Your task to perform on an android device: Go to calendar. Show me events next week Image 0: 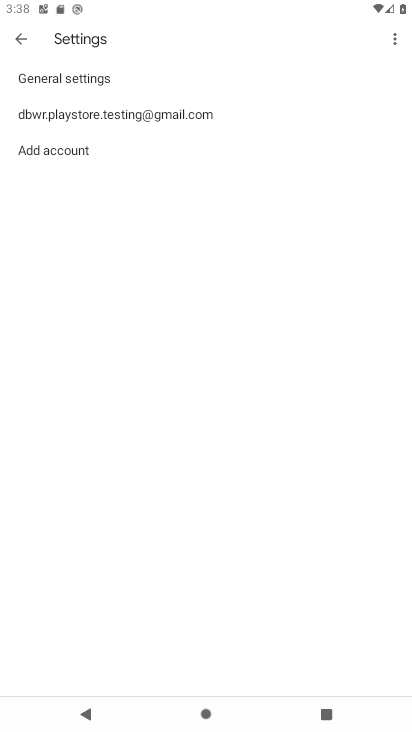
Step 0: press home button
Your task to perform on an android device: Go to calendar. Show me events next week Image 1: 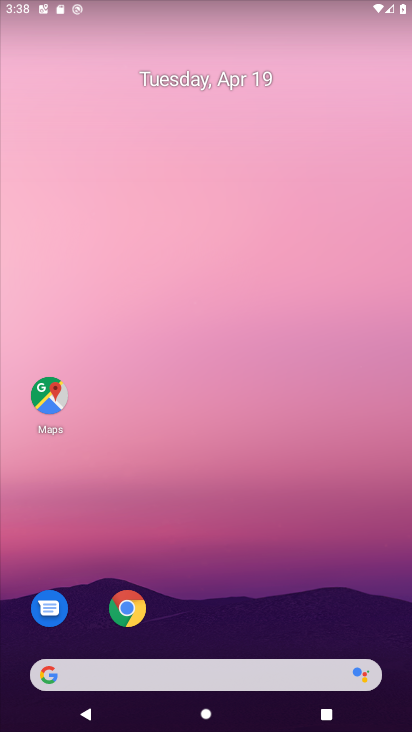
Step 1: drag from (252, 522) to (264, 17)
Your task to perform on an android device: Go to calendar. Show me events next week Image 2: 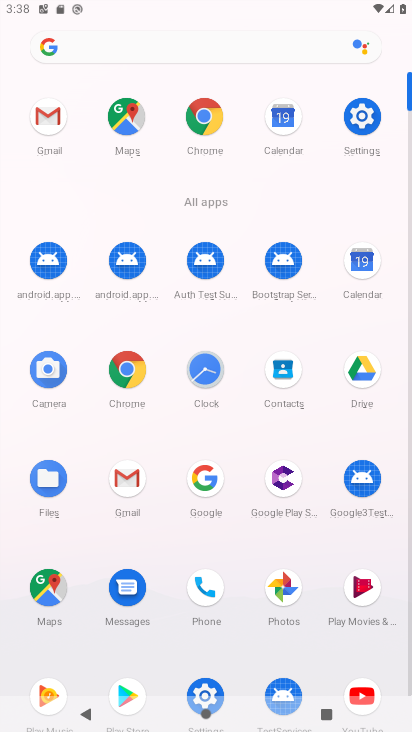
Step 2: click (363, 272)
Your task to perform on an android device: Go to calendar. Show me events next week Image 3: 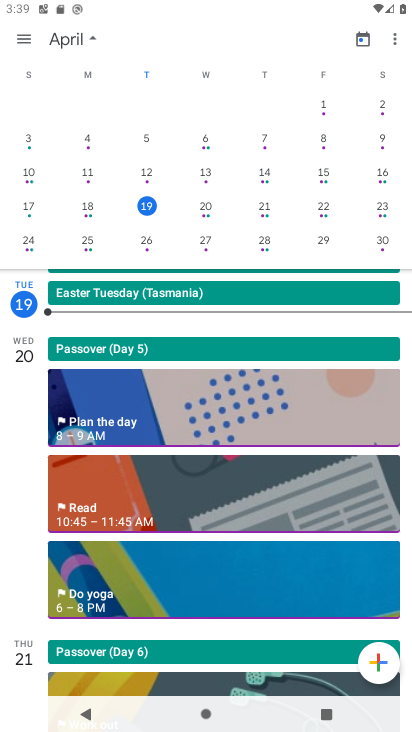
Step 3: click (147, 238)
Your task to perform on an android device: Go to calendar. Show me events next week Image 4: 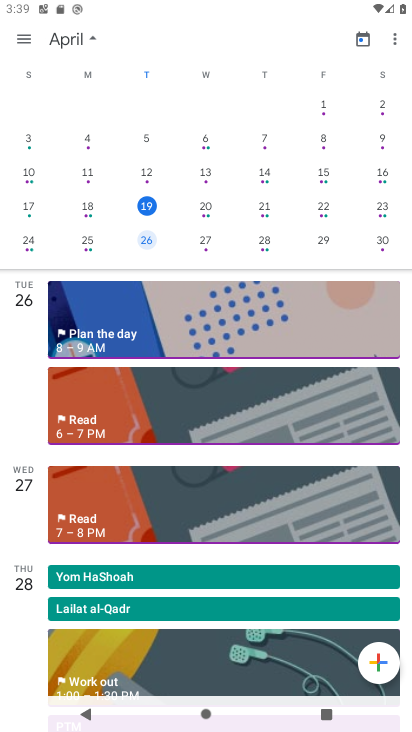
Step 4: click (143, 238)
Your task to perform on an android device: Go to calendar. Show me events next week Image 5: 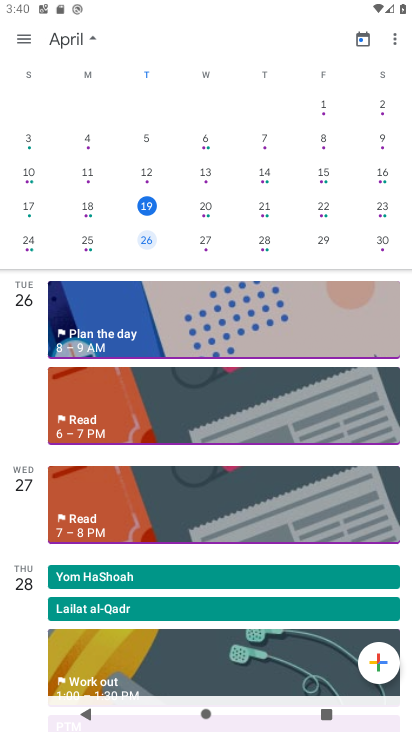
Step 5: click (148, 239)
Your task to perform on an android device: Go to calendar. Show me events next week Image 6: 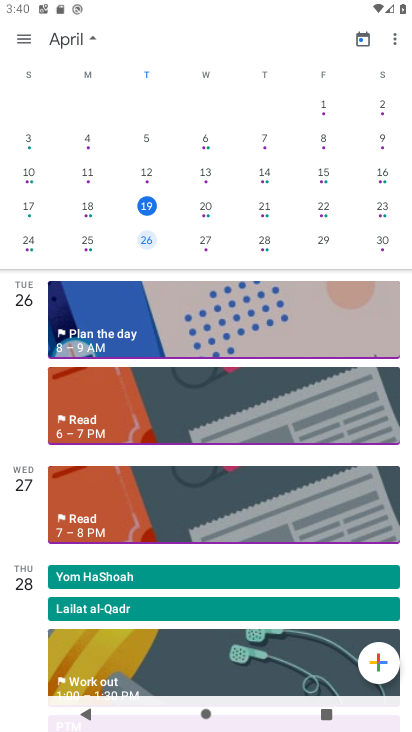
Step 6: task complete